Your task to perform on an android device: check storage Image 0: 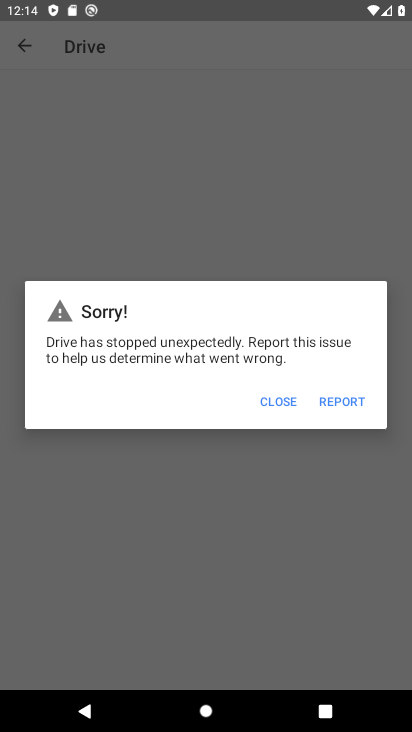
Step 0: press home button
Your task to perform on an android device: check storage Image 1: 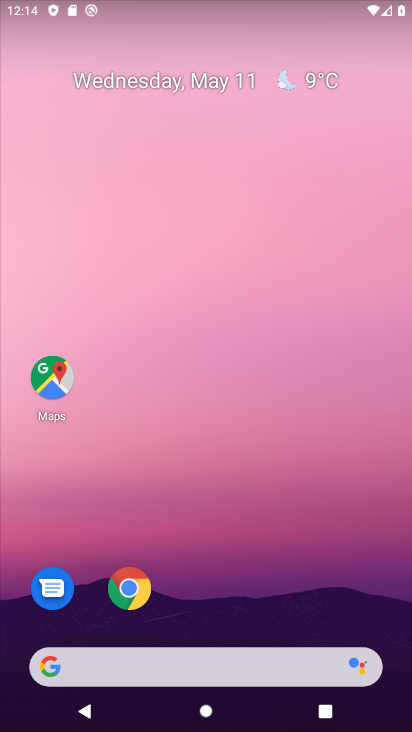
Step 1: drag from (322, 616) to (300, 1)
Your task to perform on an android device: check storage Image 2: 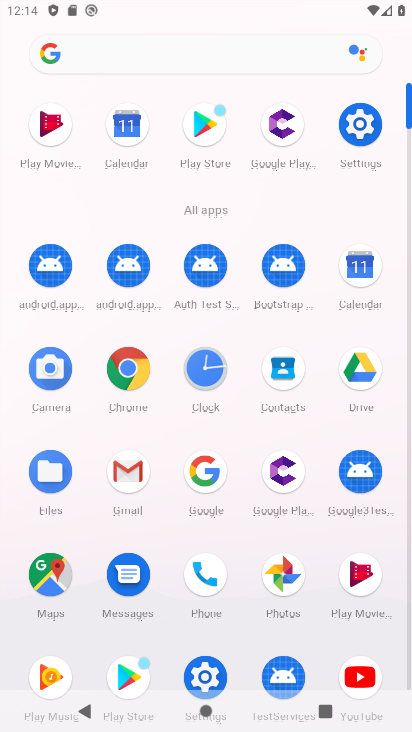
Step 2: click (353, 120)
Your task to perform on an android device: check storage Image 3: 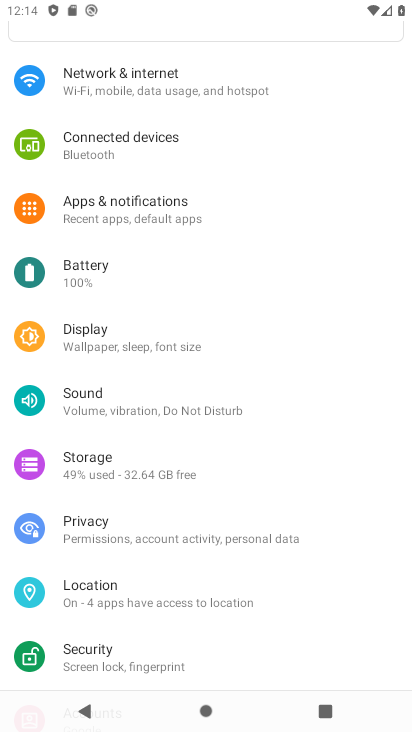
Step 3: click (104, 465)
Your task to perform on an android device: check storage Image 4: 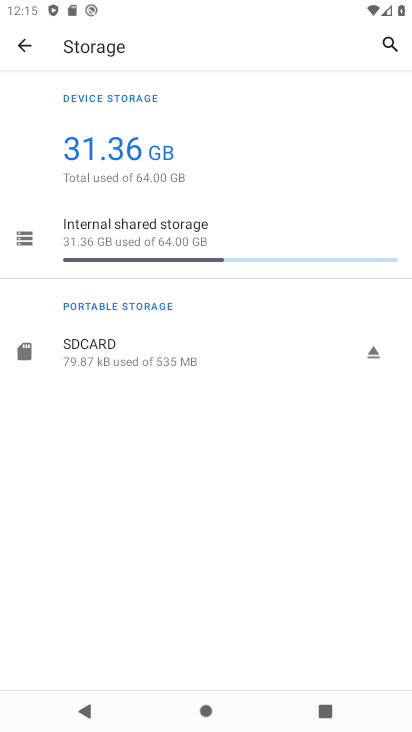
Step 4: click (159, 234)
Your task to perform on an android device: check storage Image 5: 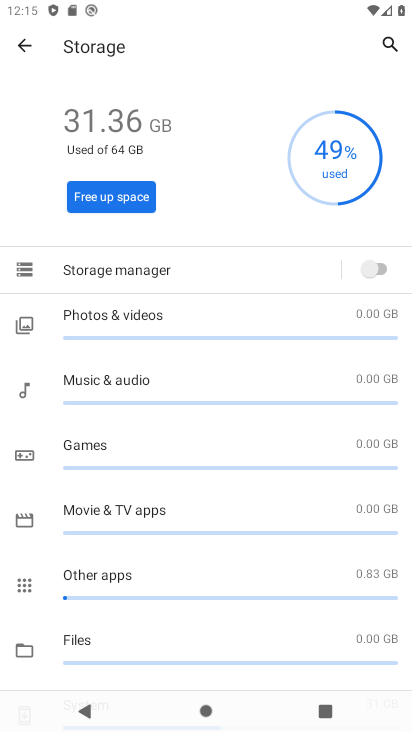
Step 5: task complete